Your task to perform on an android device: change alarm snooze length Image 0: 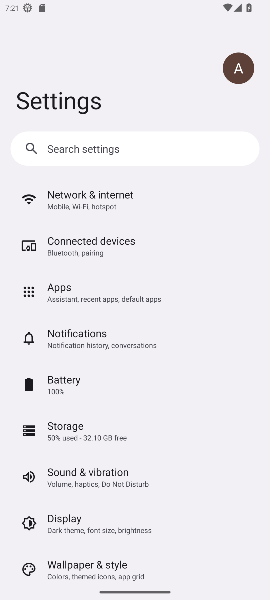
Step 0: press home button
Your task to perform on an android device: change alarm snooze length Image 1: 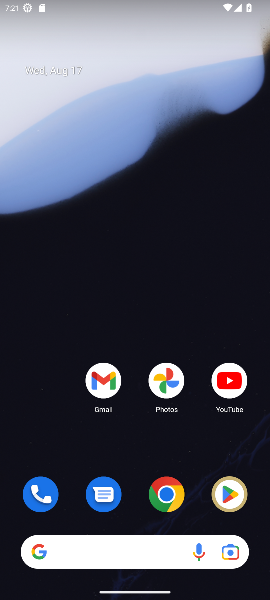
Step 1: drag from (96, 480) to (125, 0)
Your task to perform on an android device: change alarm snooze length Image 2: 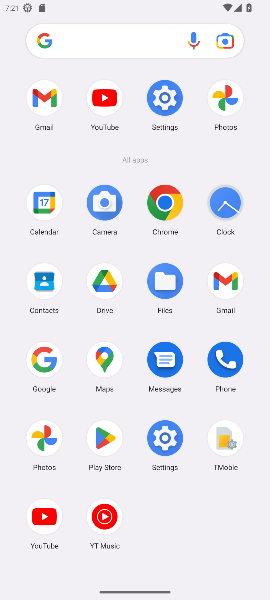
Step 2: click (231, 210)
Your task to perform on an android device: change alarm snooze length Image 3: 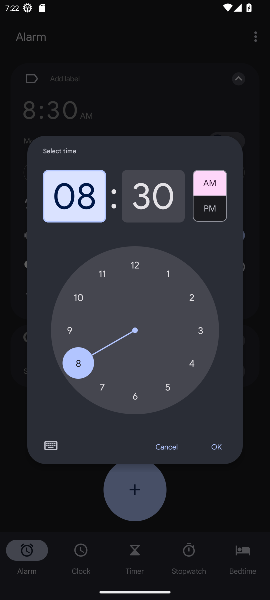
Step 3: press back button
Your task to perform on an android device: change alarm snooze length Image 4: 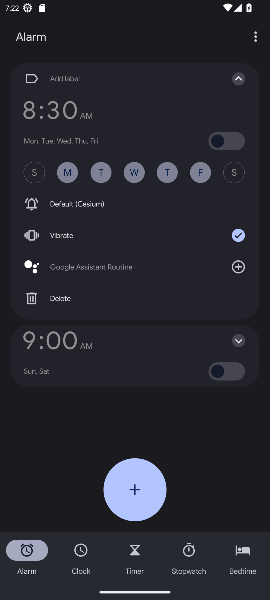
Step 4: click (255, 46)
Your task to perform on an android device: change alarm snooze length Image 5: 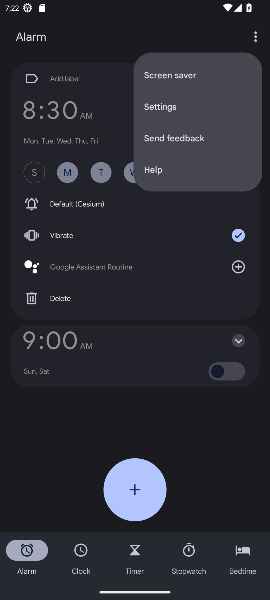
Step 5: click (171, 110)
Your task to perform on an android device: change alarm snooze length Image 6: 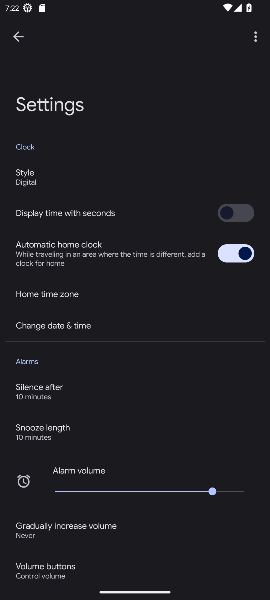
Step 6: click (53, 425)
Your task to perform on an android device: change alarm snooze length Image 7: 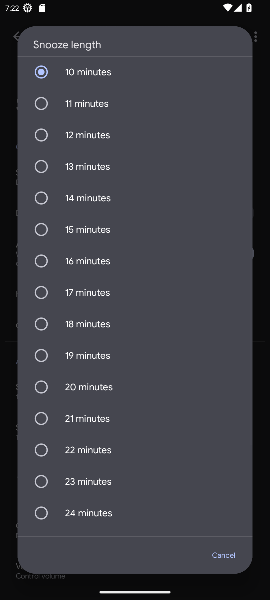
Step 7: click (76, 297)
Your task to perform on an android device: change alarm snooze length Image 8: 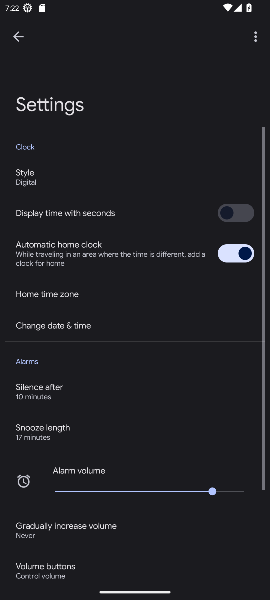
Step 8: task complete